Your task to perform on an android device: turn smart compose on in the gmail app Image 0: 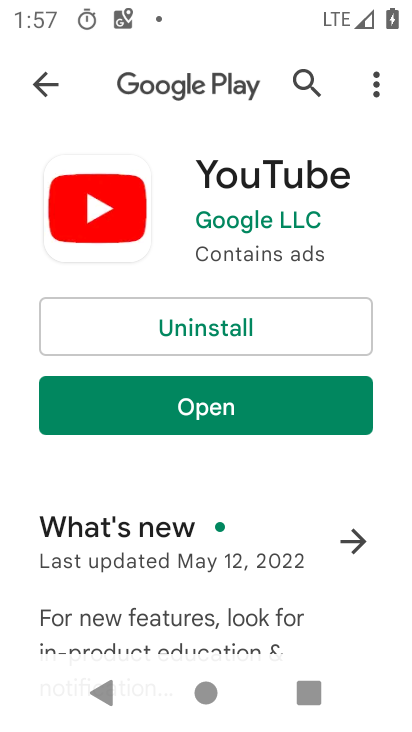
Step 0: press home button
Your task to perform on an android device: turn smart compose on in the gmail app Image 1: 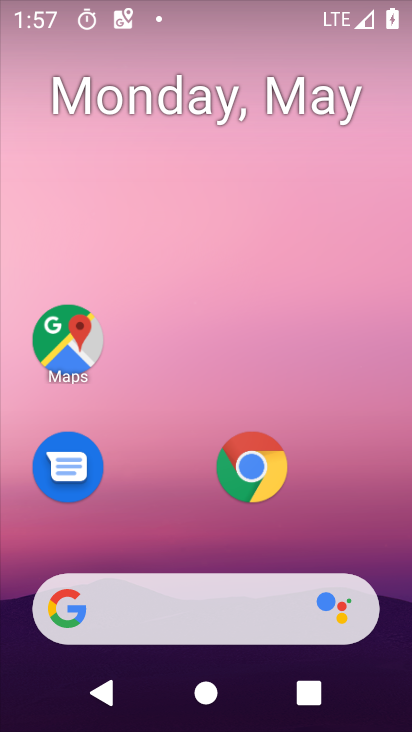
Step 1: drag from (189, 527) to (196, 138)
Your task to perform on an android device: turn smart compose on in the gmail app Image 2: 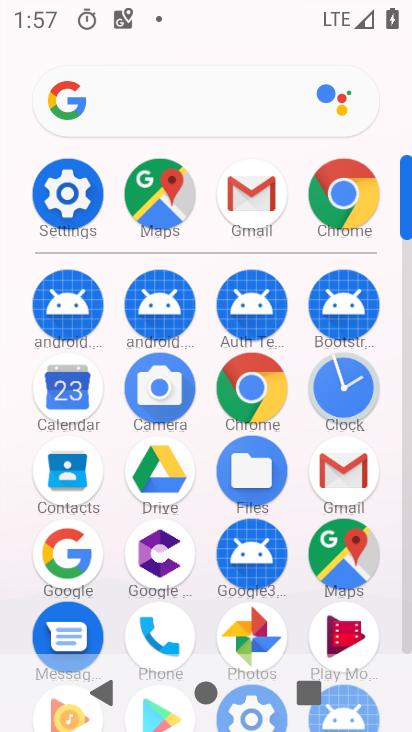
Step 2: click (343, 467)
Your task to perform on an android device: turn smart compose on in the gmail app Image 3: 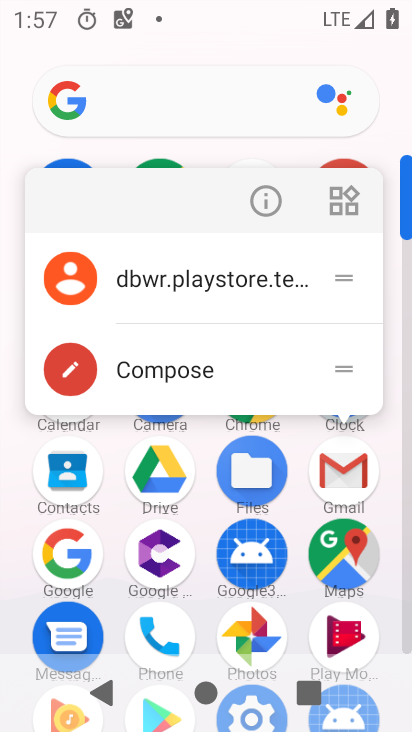
Step 3: click (269, 197)
Your task to perform on an android device: turn smart compose on in the gmail app Image 4: 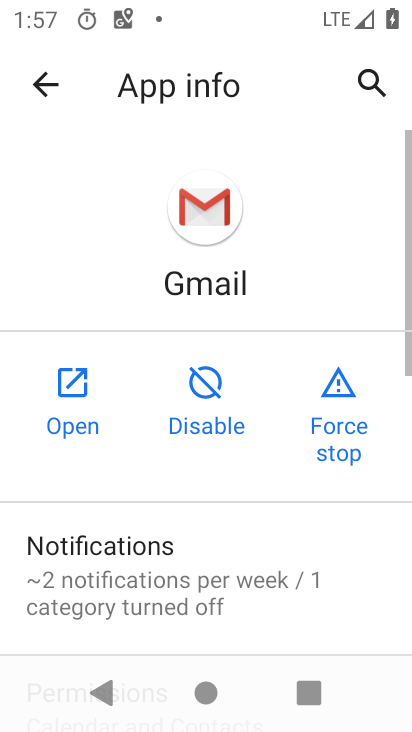
Step 4: click (84, 387)
Your task to perform on an android device: turn smart compose on in the gmail app Image 5: 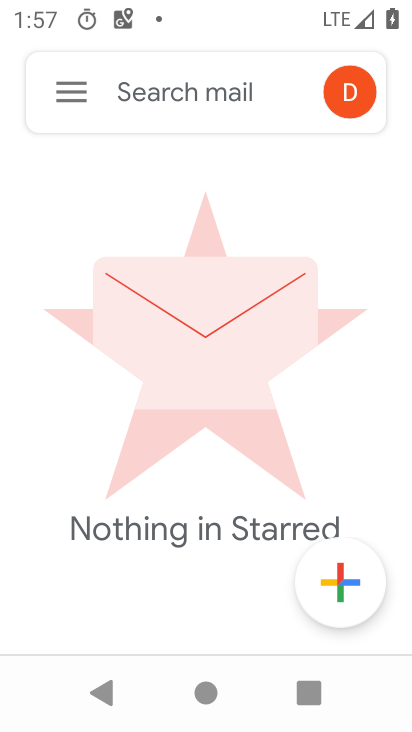
Step 5: click (63, 86)
Your task to perform on an android device: turn smart compose on in the gmail app Image 6: 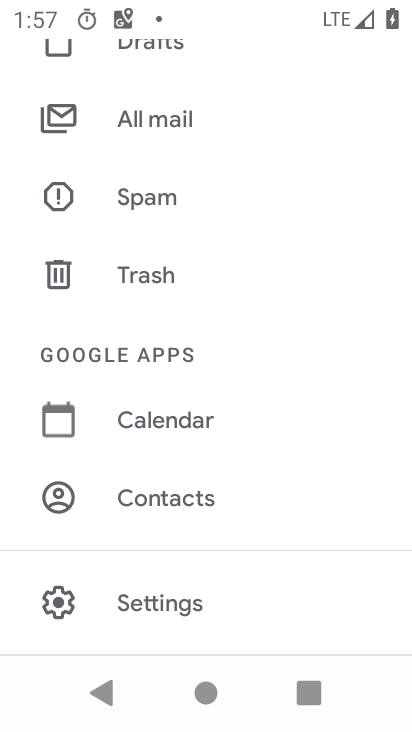
Step 6: click (177, 600)
Your task to perform on an android device: turn smart compose on in the gmail app Image 7: 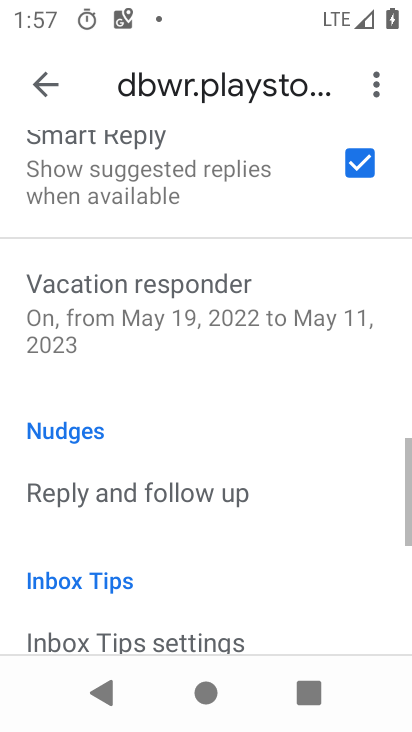
Step 7: task complete